Your task to perform on an android device: change text size in settings app Image 0: 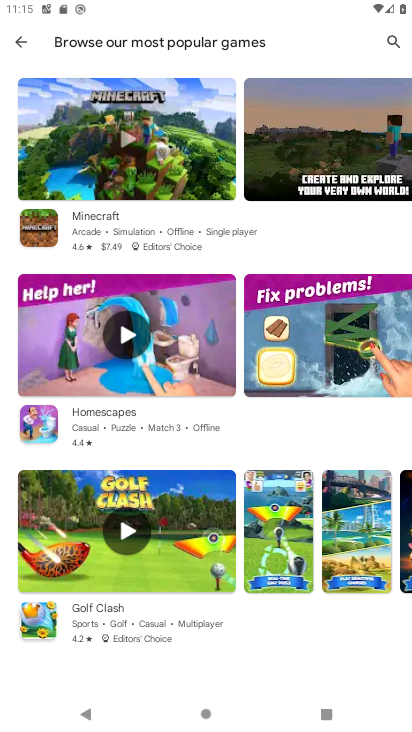
Step 0: press home button
Your task to perform on an android device: change text size in settings app Image 1: 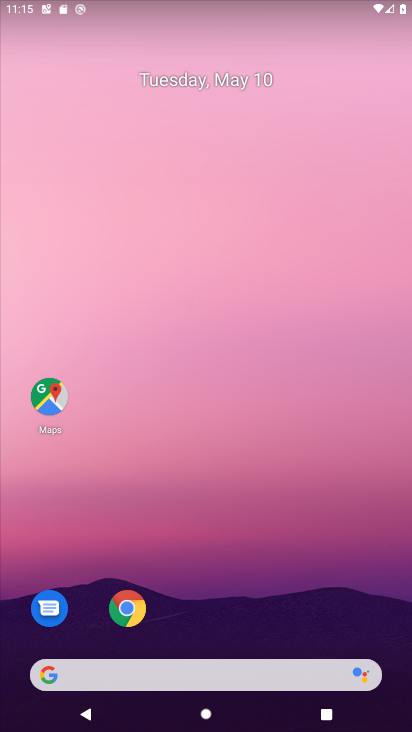
Step 1: drag from (210, 663) to (249, 290)
Your task to perform on an android device: change text size in settings app Image 2: 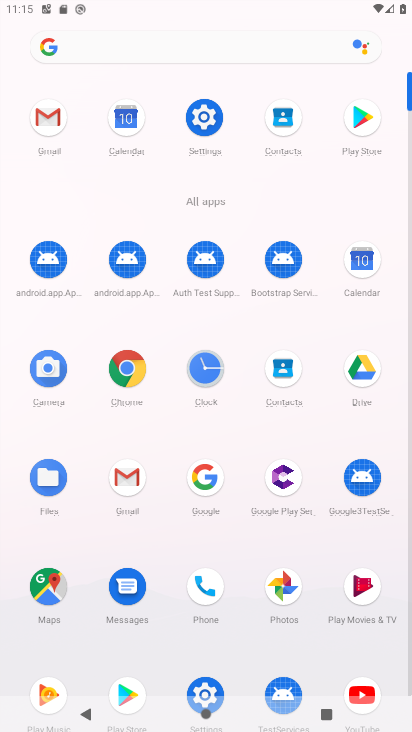
Step 2: click (200, 130)
Your task to perform on an android device: change text size in settings app Image 3: 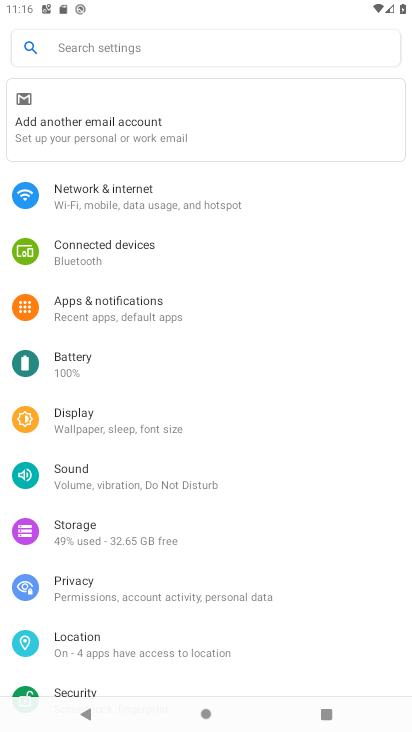
Step 3: click (67, 414)
Your task to perform on an android device: change text size in settings app Image 4: 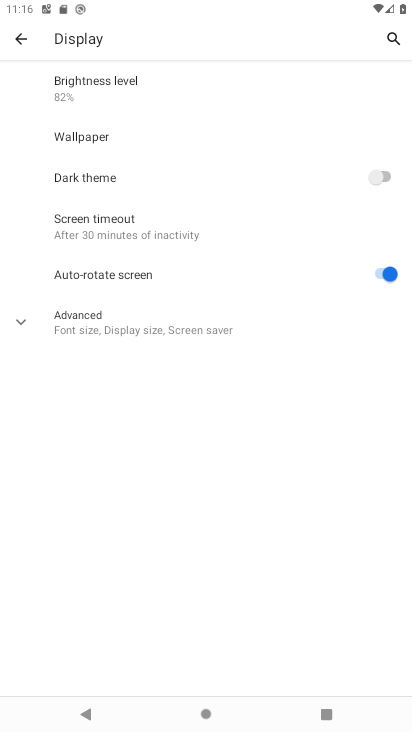
Step 4: click (96, 315)
Your task to perform on an android device: change text size in settings app Image 5: 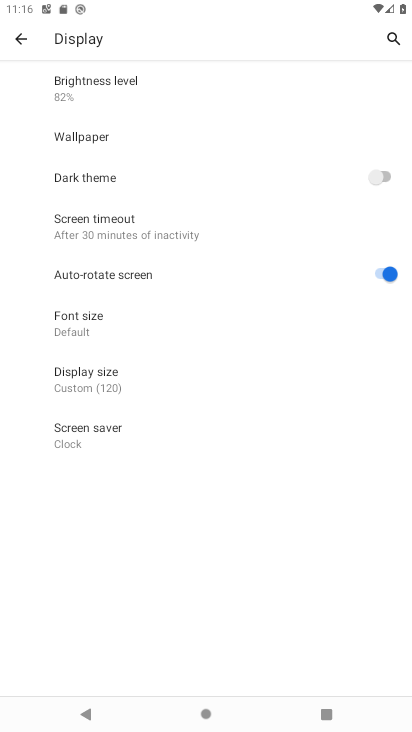
Step 5: click (112, 319)
Your task to perform on an android device: change text size in settings app Image 6: 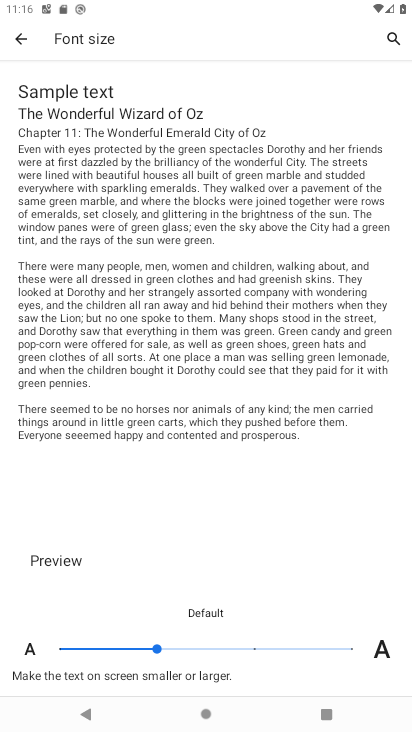
Step 6: click (68, 648)
Your task to perform on an android device: change text size in settings app Image 7: 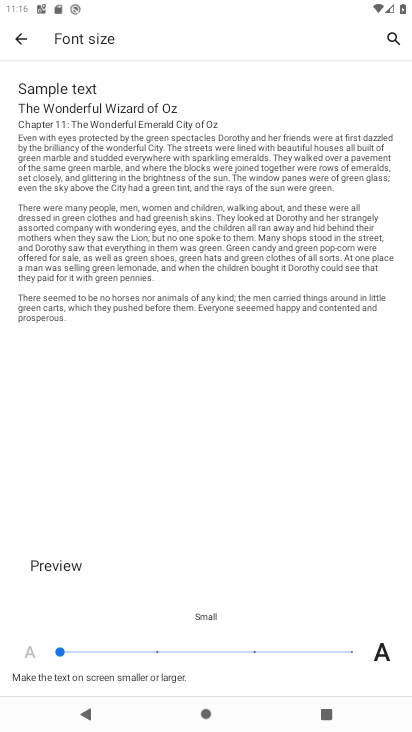
Step 7: task complete